Your task to perform on an android device: Show me recent news Image 0: 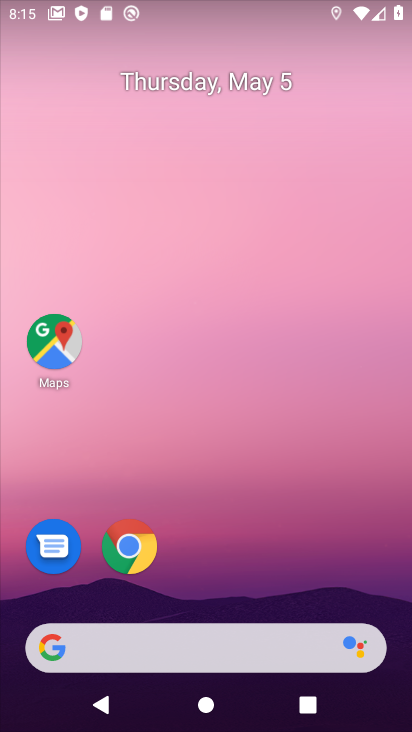
Step 0: click (305, 583)
Your task to perform on an android device: Show me recent news Image 1: 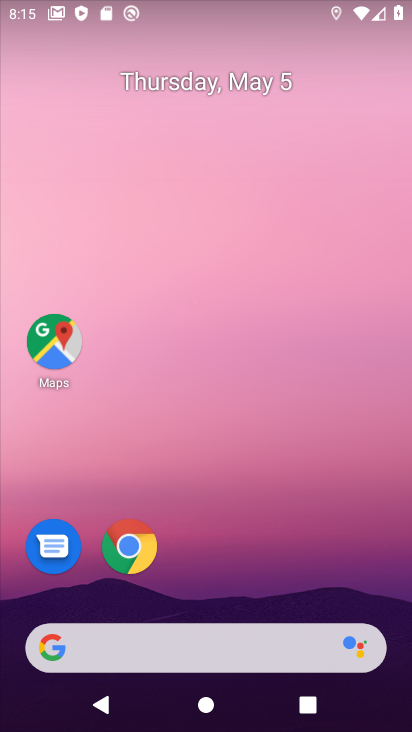
Step 1: task complete